Your task to perform on an android device: Show me popular videos on Youtube Image 0: 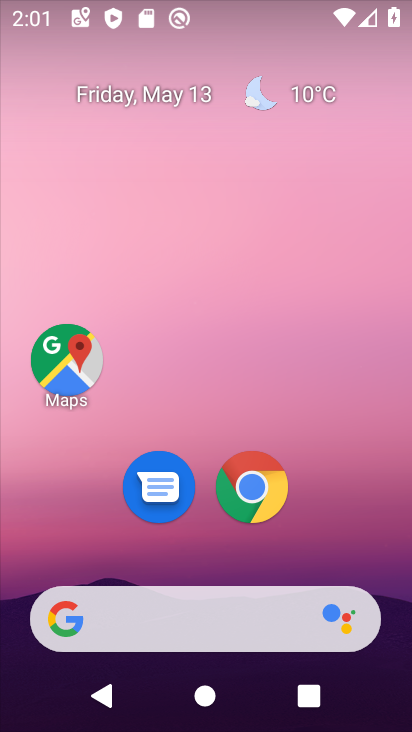
Step 0: drag from (209, 565) to (278, 179)
Your task to perform on an android device: Show me popular videos on Youtube Image 1: 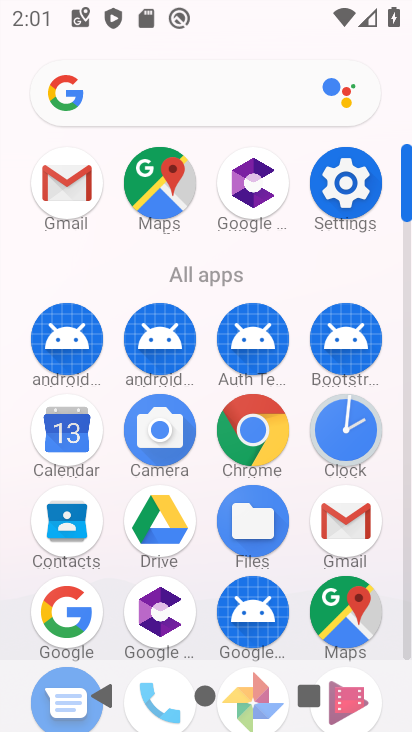
Step 1: drag from (201, 566) to (259, 264)
Your task to perform on an android device: Show me popular videos on Youtube Image 2: 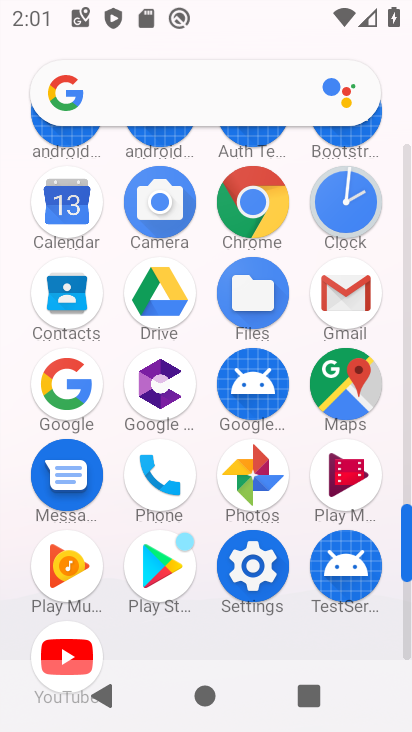
Step 2: click (56, 647)
Your task to perform on an android device: Show me popular videos on Youtube Image 3: 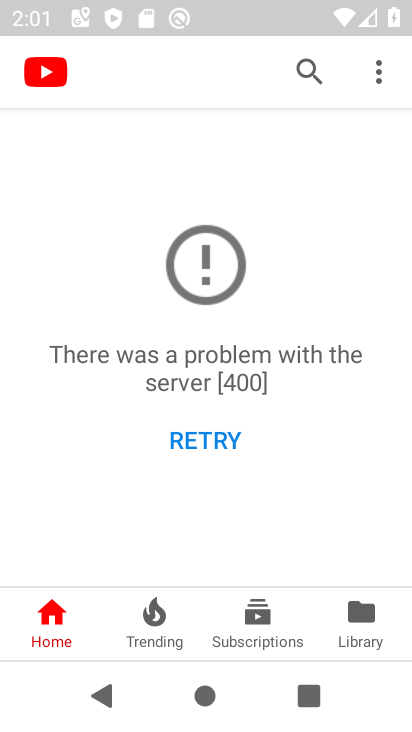
Step 3: task complete